Your task to perform on an android device: open sync settings in chrome Image 0: 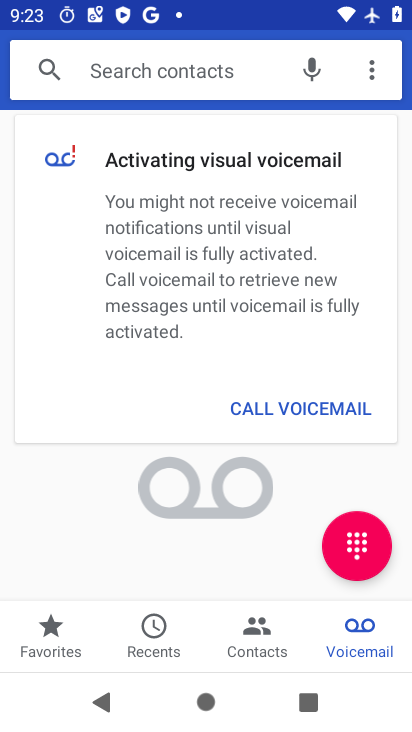
Step 0: press home button
Your task to perform on an android device: open sync settings in chrome Image 1: 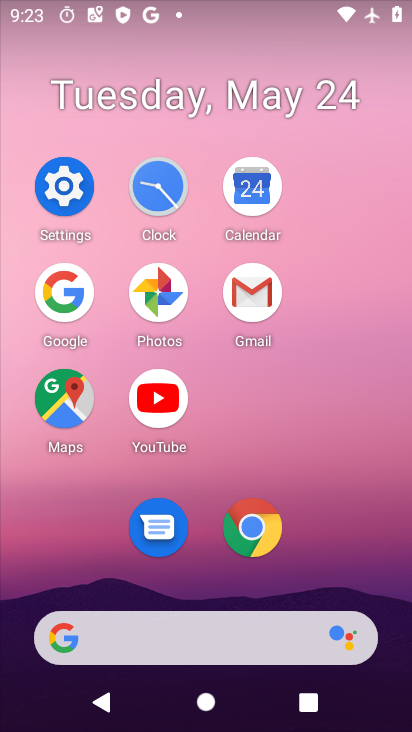
Step 1: click (279, 528)
Your task to perform on an android device: open sync settings in chrome Image 2: 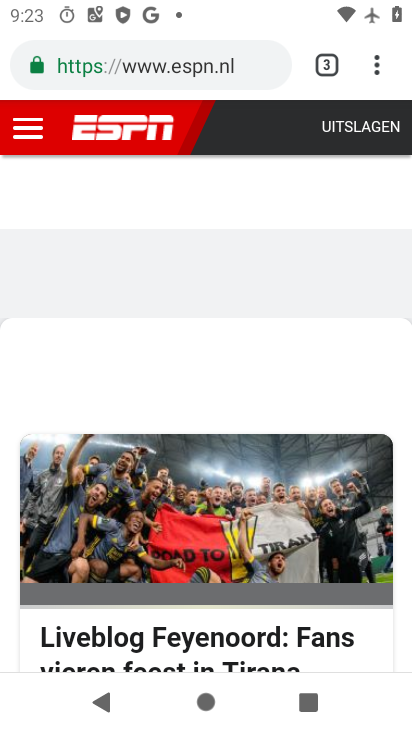
Step 2: click (325, 71)
Your task to perform on an android device: open sync settings in chrome Image 3: 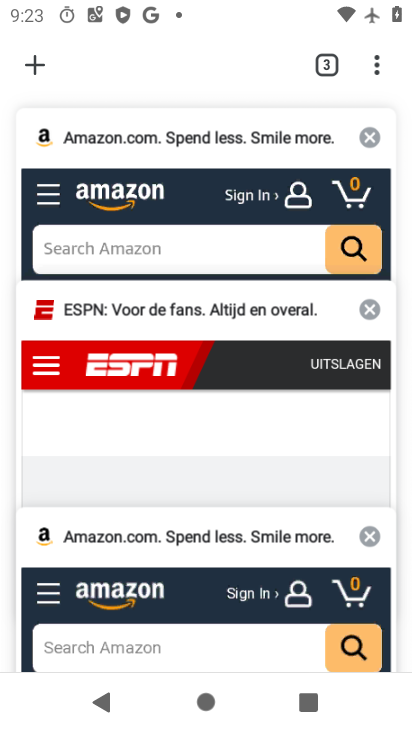
Step 3: click (60, 72)
Your task to perform on an android device: open sync settings in chrome Image 4: 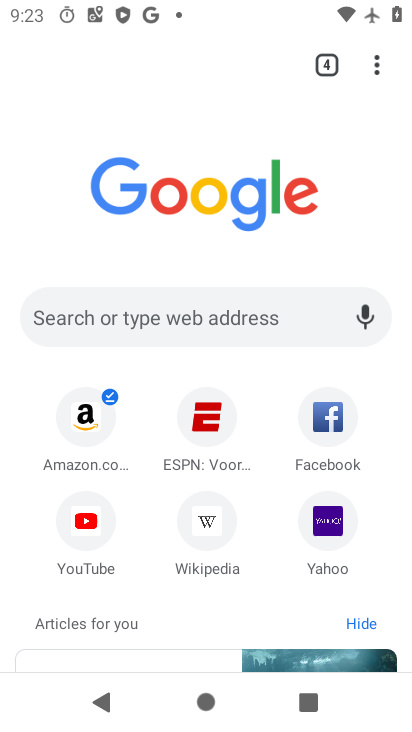
Step 4: click (224, 311)
Your task to perform on an android device: open sync settings in chrome Image 5: 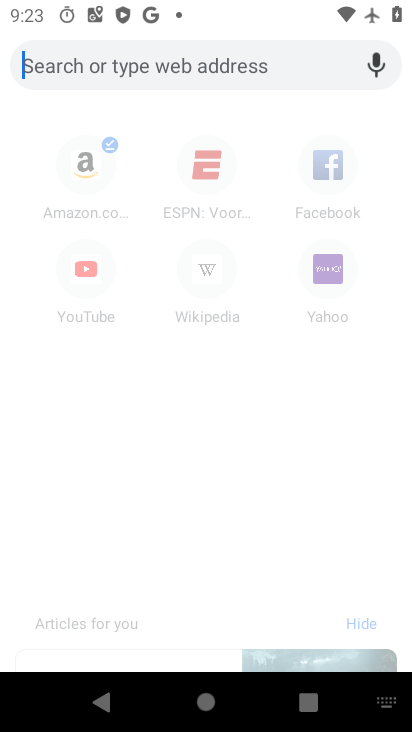
Step 5: type "ebay"
Your task to perform on an android device: open sync settings in chrome Image 6: 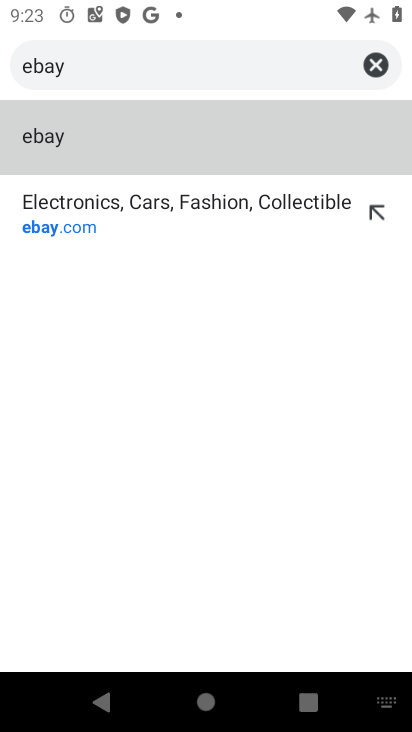
Step 6: click (123, 230)
Your task to perform on an android device: open sync settings in chrome Image 7: 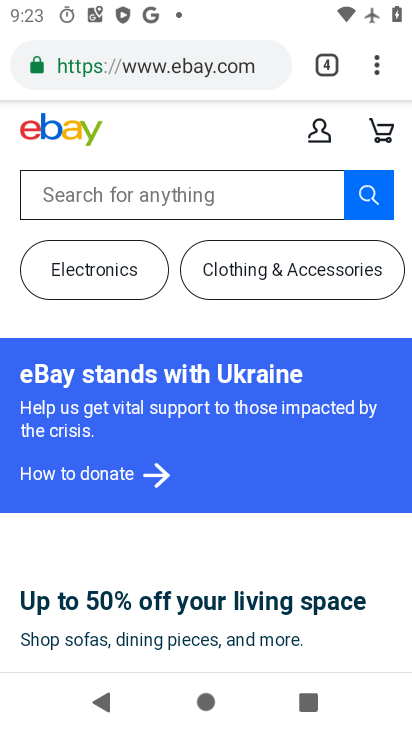
Step 7: task complete